Your task to perform on an android device: Search for pizza restaurants on Maps Image 0: 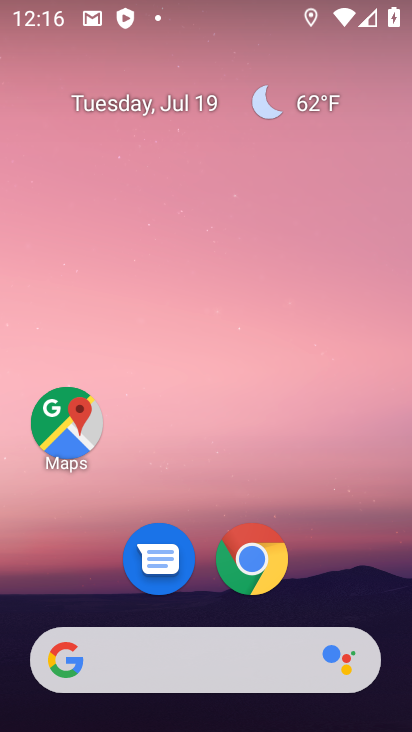
Step 0: drag from (199, 687) to (199, 164)
Your task to perform on an android device: Search for pizza restaurants on Maps Image 1: 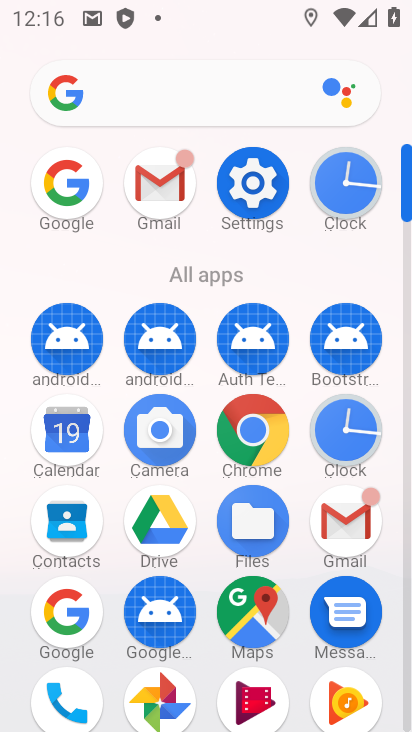
Step 1: drag from (181, 530) to (201, 144)
Your task to perform on an android device: Search for pizza restaurants on Maps Image 2: 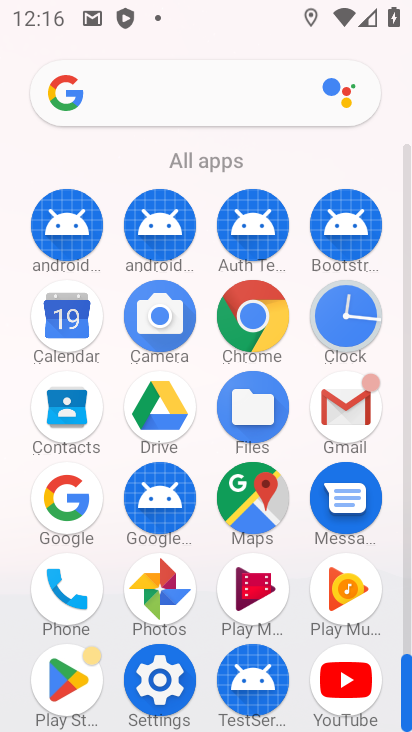
Step 2: click (262, 502)
Your task to perform on an android device: Search for pizza restaurants on Maps Image 3: 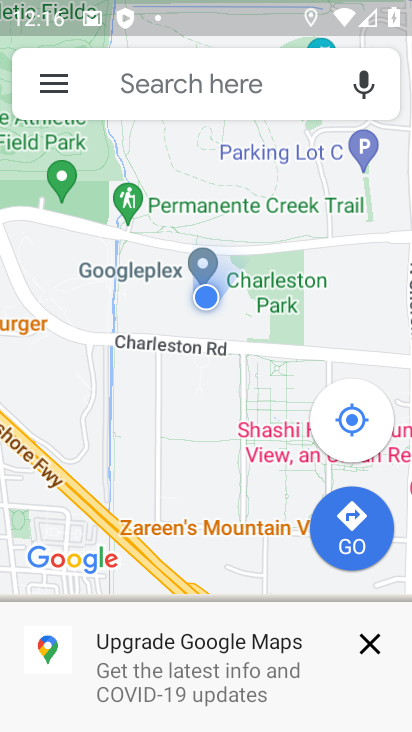
Step 3: click (257, 87)
Your task to perform on an android device: Search for pizza restaurants on Maps Image 4: 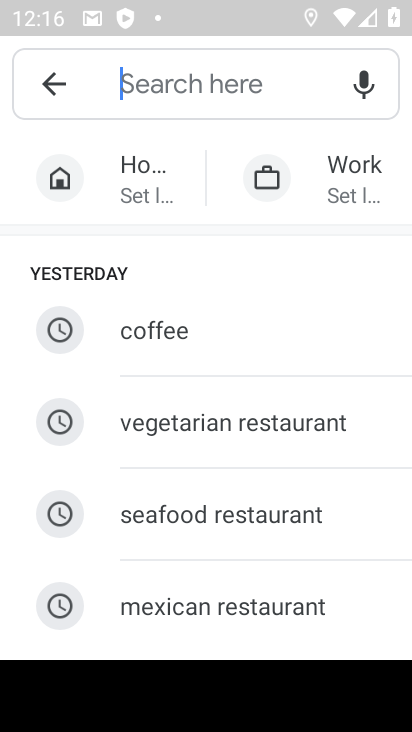
Step 4: type "pizza"
Your task to perform on an android device: Search for pizza restaurants on Maps Image 5: 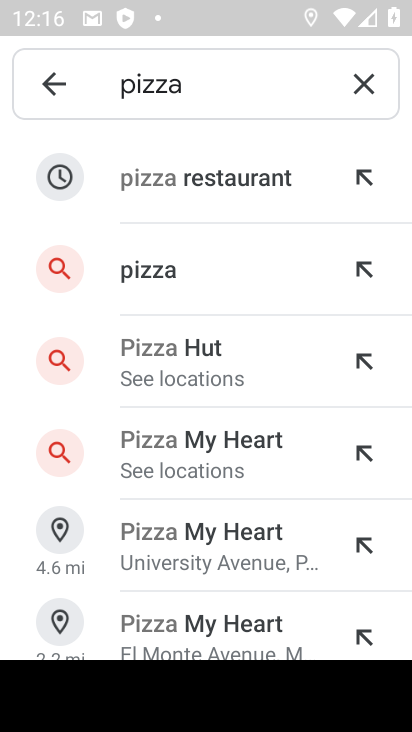
Step 5: click (262, 187)
Your task to perform on an android device: Search for pizza restaurants on Maps Image 6: 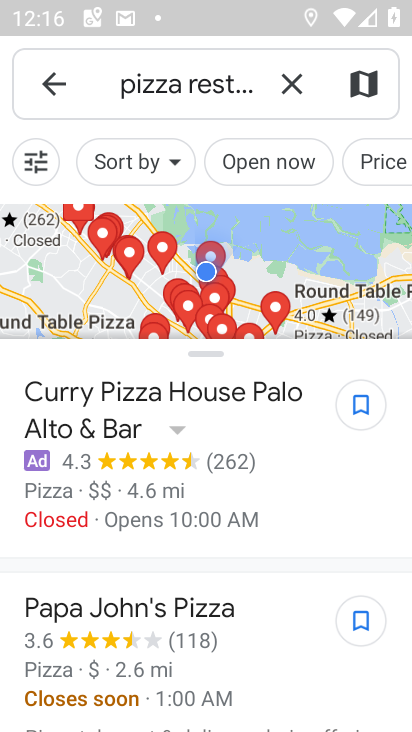
Step 6: task complete